Your task to perform on an android device: Open Android settings Image 0: 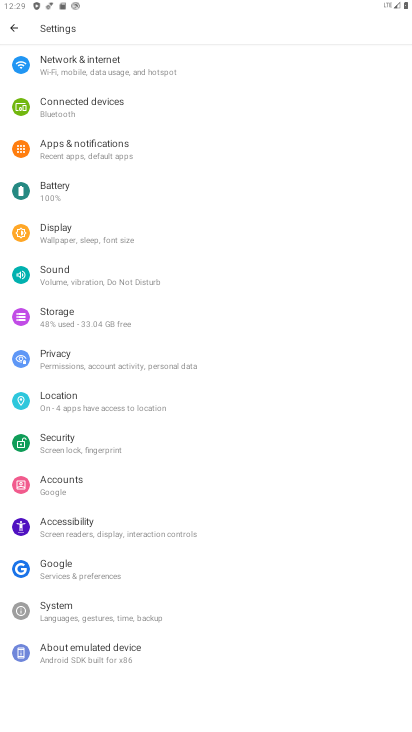
Step 0: task complete